Your task to perform on an android device: snooze an email in the gmail app Image 0: 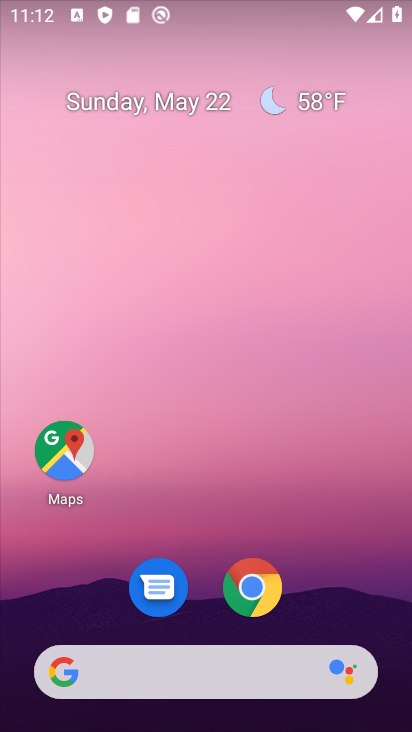
Step 0: drag from (195, 524) to (197, 2)
Your task to perform on an android device: snooze an email in the gmail app Image 1: 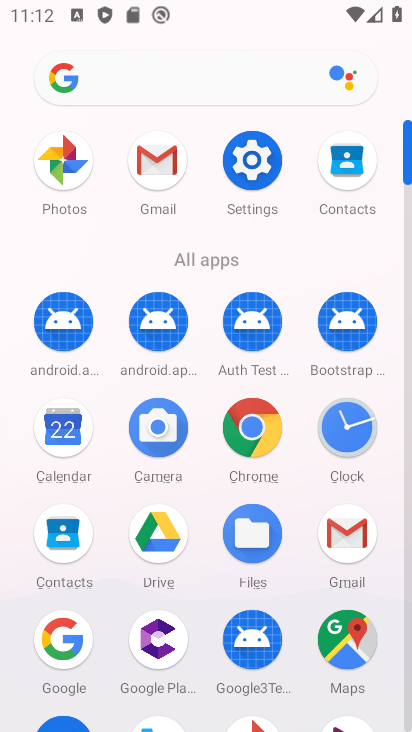
Step 1: click (153, 169)
Your task to perform on an android device: snooze an email in the gmail app Image 2: 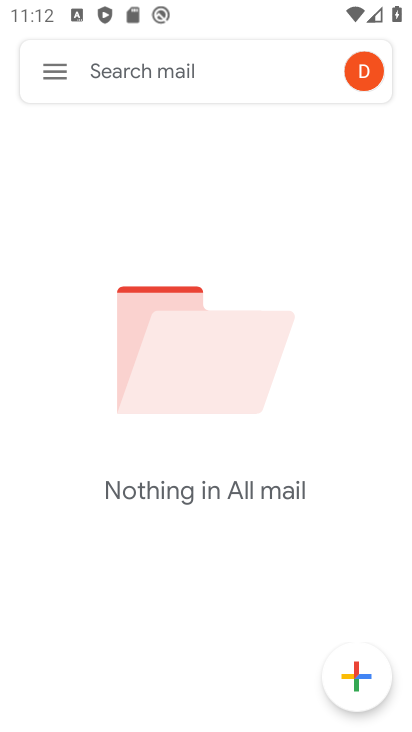
Step 2: task complete